Your task to perform on an android device: View the shopping cart on walmart. Image 0: 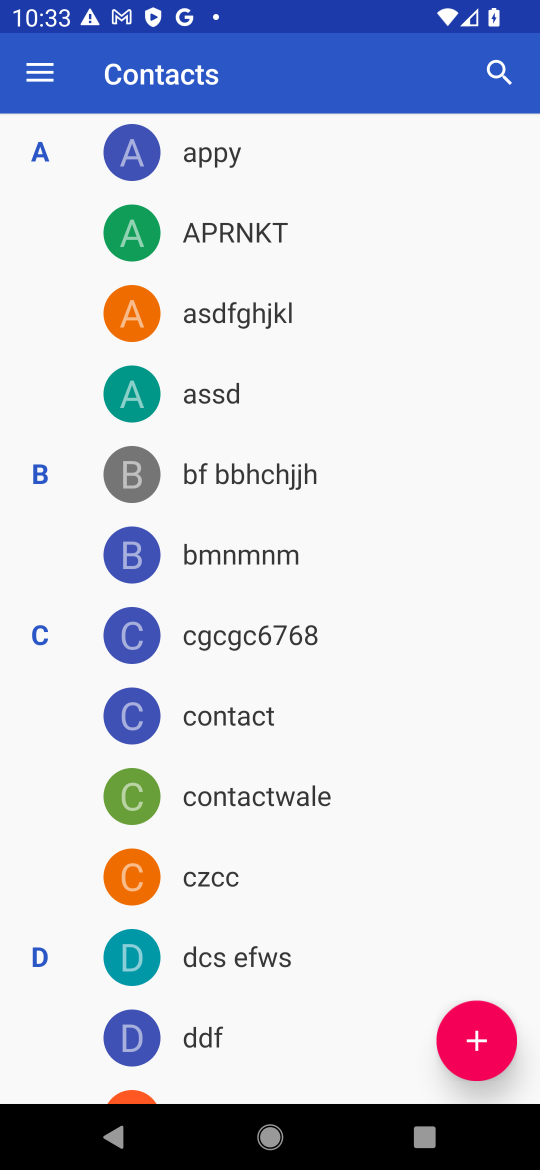
Step 0: press home button
Your task to perform on an android device: View the shopping cart on walmart. Image 1: 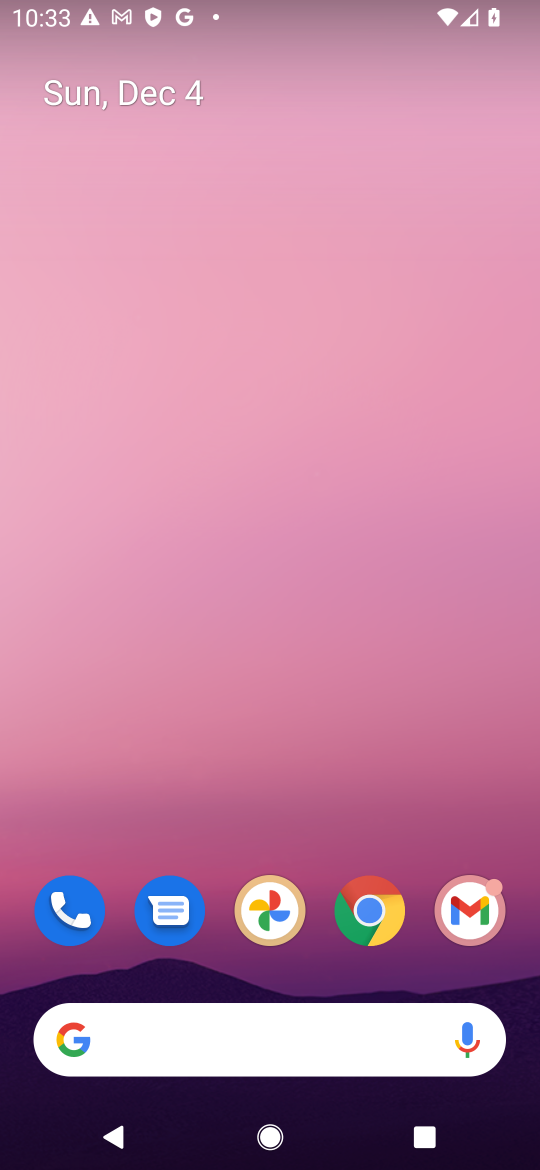
Step 1: drag from (336, 1115) to (400, 46)
Your task to perform on an android device: View the shopping cart on walmart. Image 2: 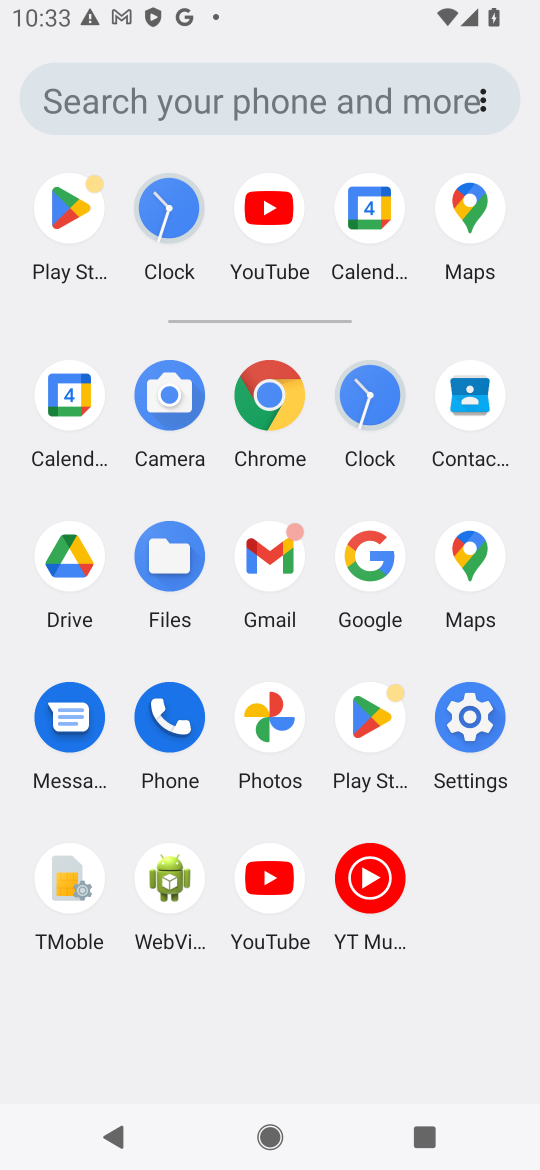
Step 2: click (274, 386)
Your task to perform on an android device: View the shopping cart on walmart. Image 3: 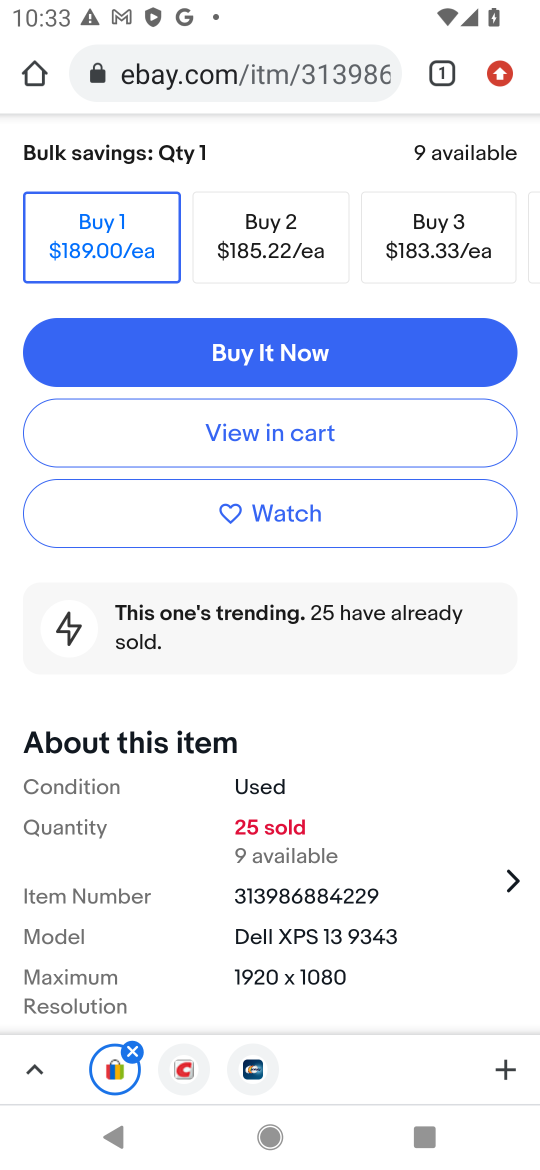
Step 3: click (249, 66)
Your task to perform on an android device: View the shopping cart on walmart. Image 4: 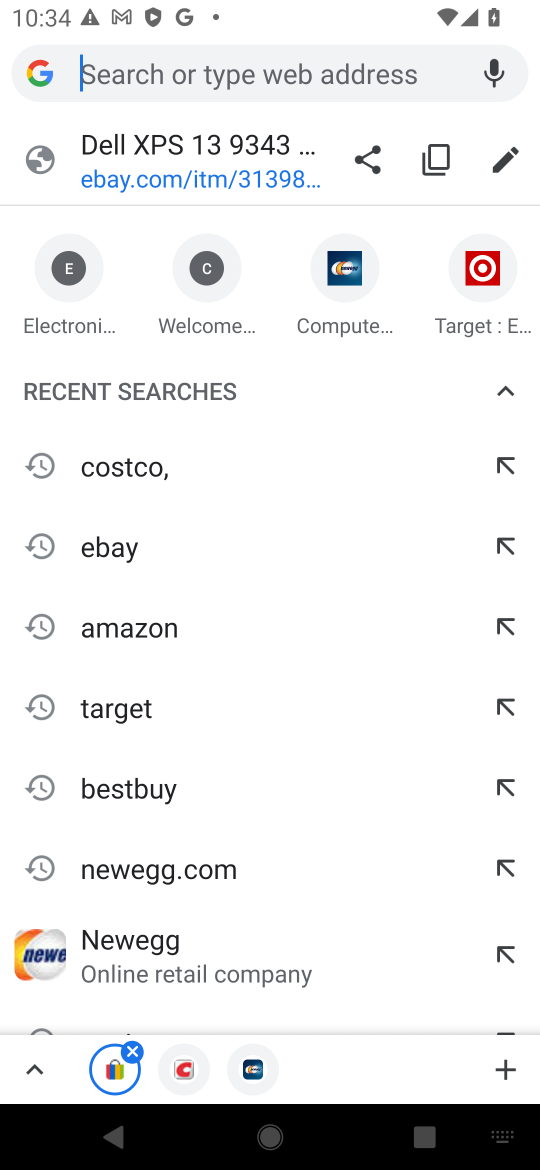
Step 4: type " walmart"
Your task to perform on an android device: View the shopping cart on walmart. Image 5: 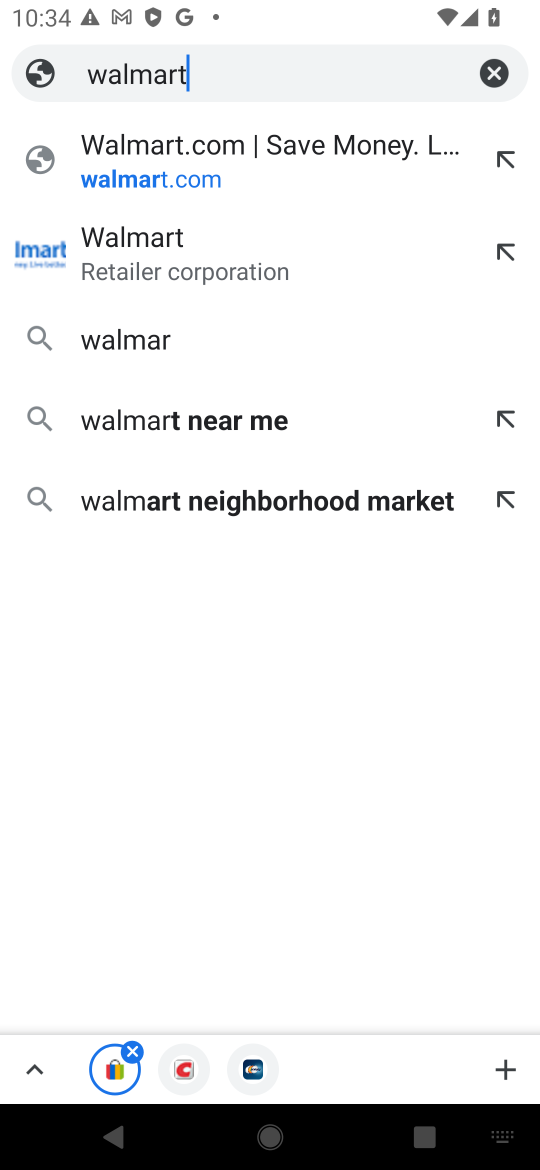
Step 5: type ""
Your task to perform on an android device: View the shopping cart on walmart. Image 6: 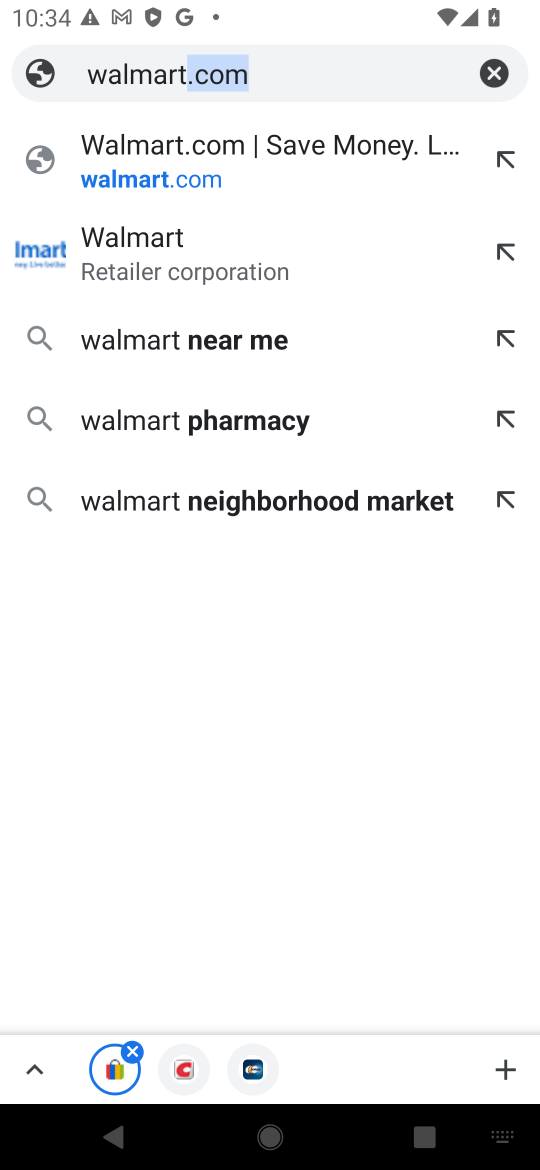
Step 6: click (119, 179)
Your task to perform on an android device: View the shopping cart on walmart. Image 7: 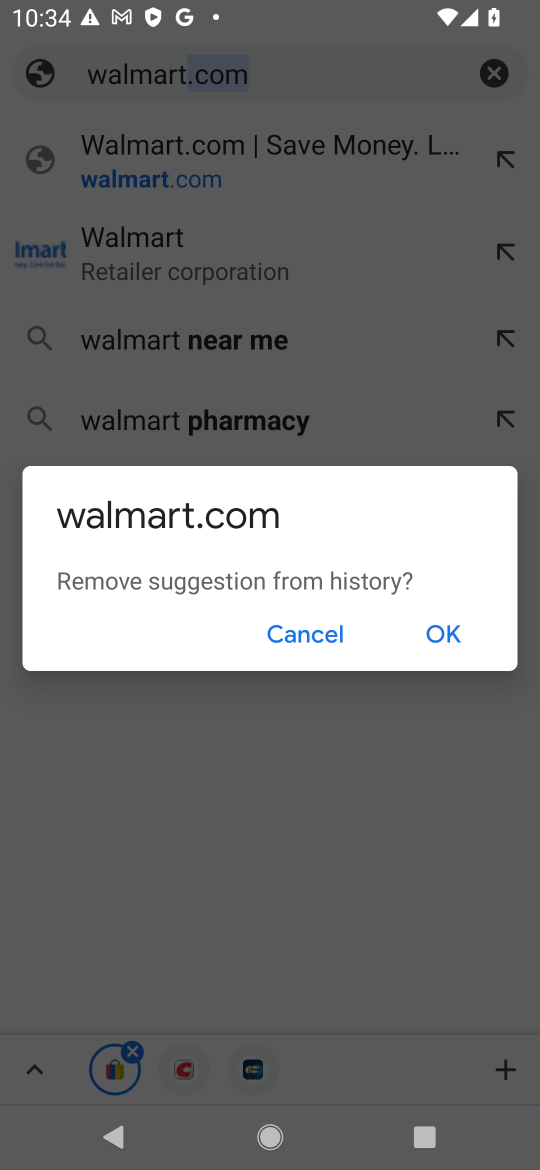
Step 7: click (445, 627)
Your task to perform on an android device: View the shopping cart on walmart. Image 8: 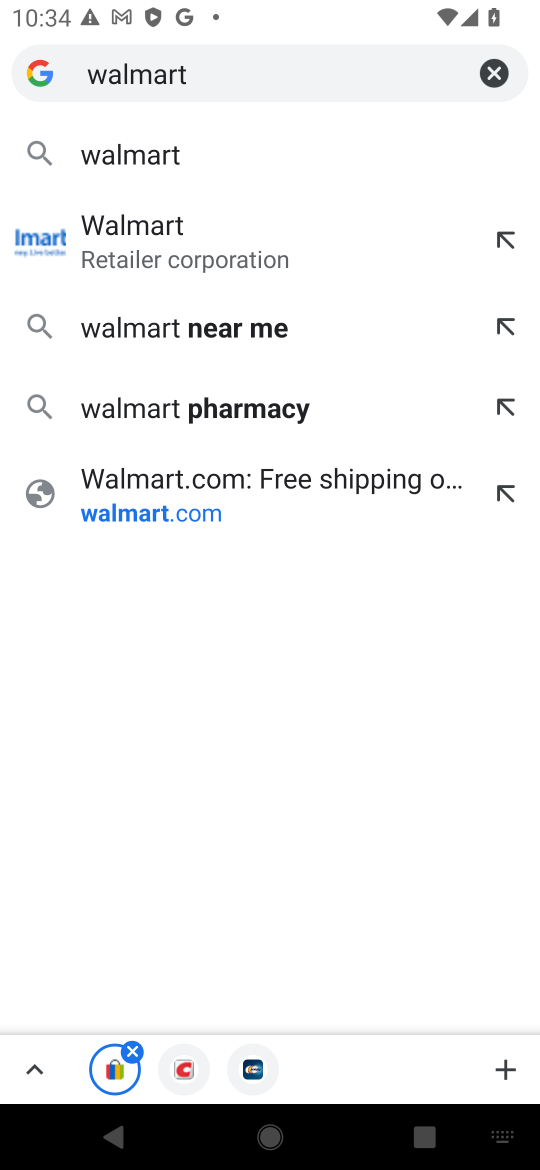
Step 8: click (130, 515)
Your task to perform on an android device: View the shopping cart on walmart. Image 9: 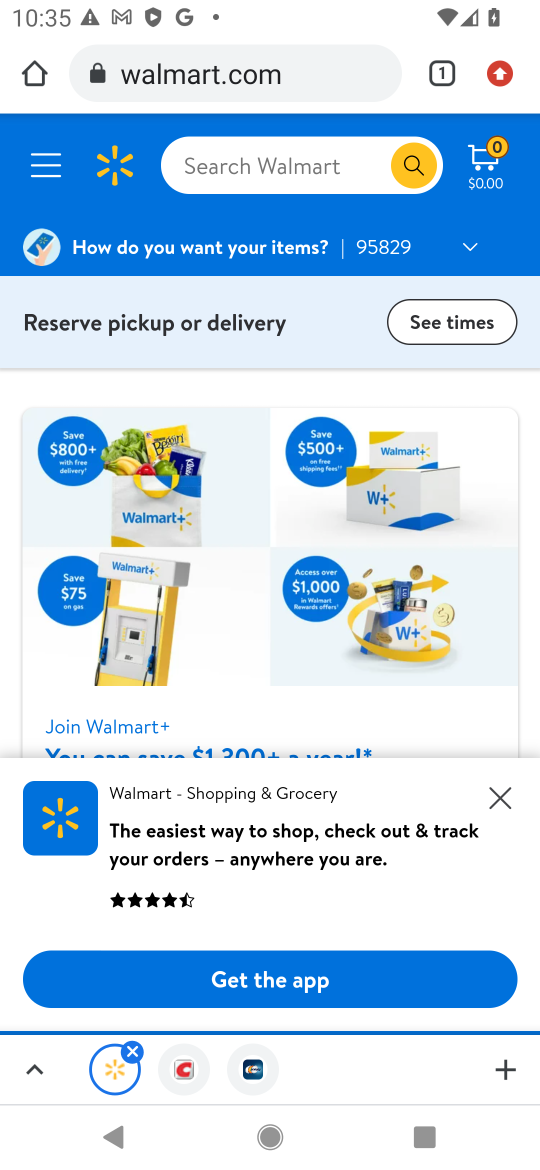
Step 9: click (482, 164)
Your task to perform on an android device: View the shopping cart on walmart. Image 10: 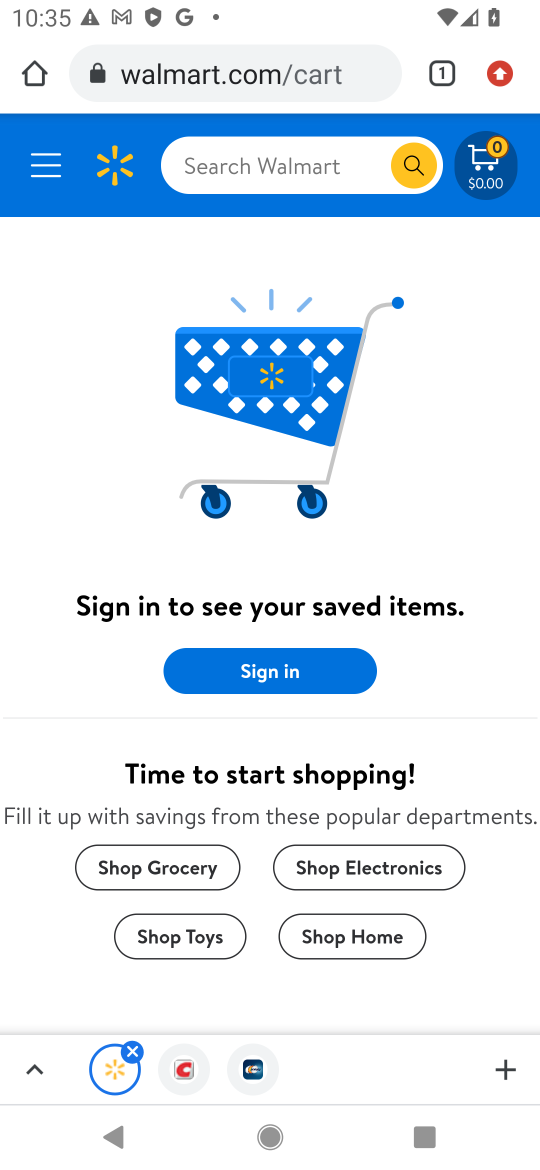
Step 10: task complete